Your task to perform on an android device: star an email in the gmail app Image 0: 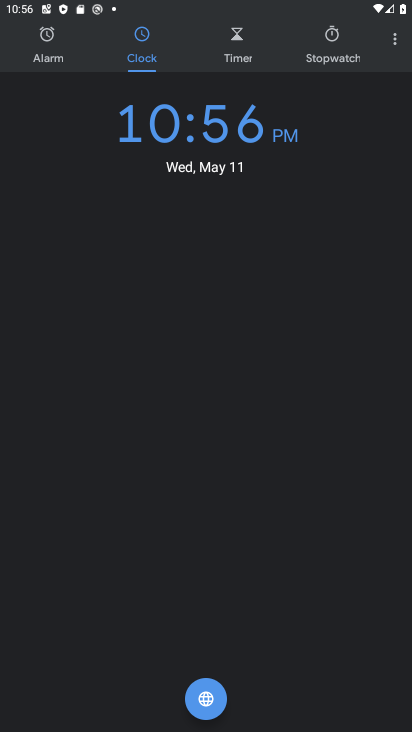
Step 0: press home button
Your task to perform on an android device: star an email in the gmail app Image 1: 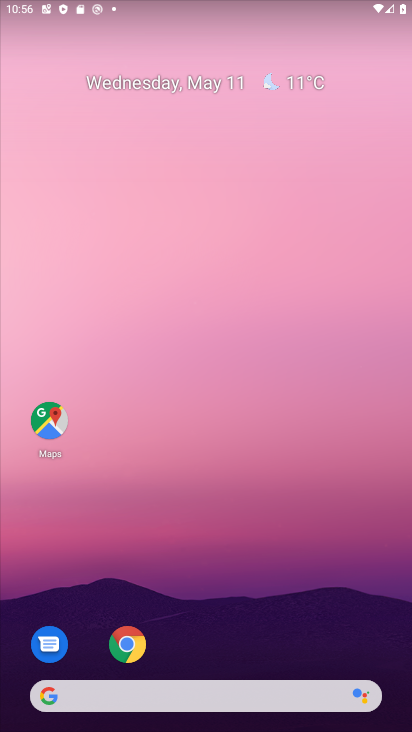
Step 1: drag from (217, 648) to (255, 121)
Your task to perform on an android device: star an email in the gmail app Image 2: 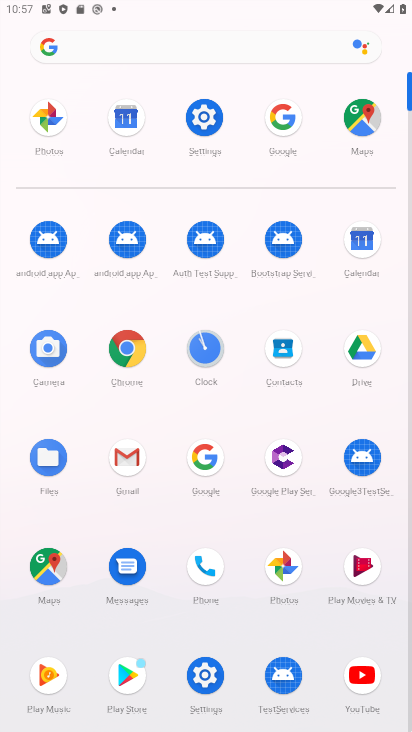
Step 2: click (126, 451)
Your task to perform on an android device: star an email in the gmail app Image 3: 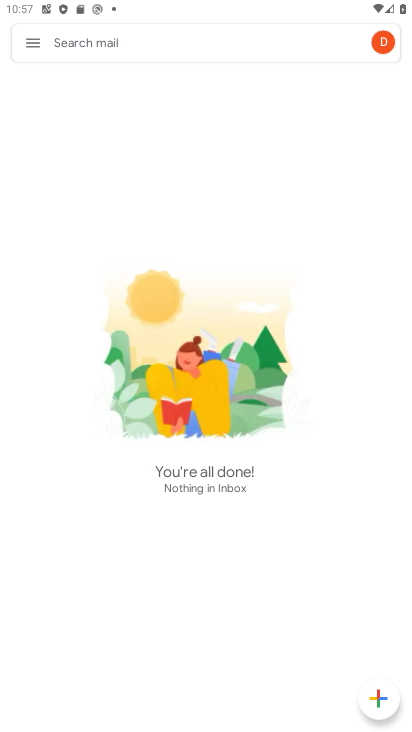
Step 3: click (28, 37)
Your task to perform on an android device: star an email in the gmail app Image 4: 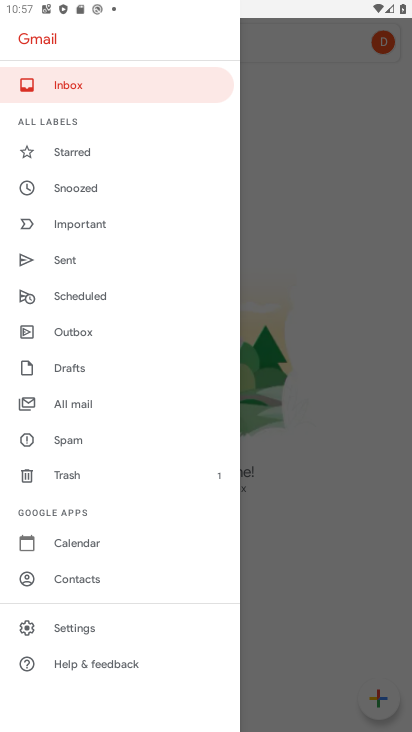
Step 4: click (84, 401)
Your task to perform on an android device: star an email in the gmail app Image 5: 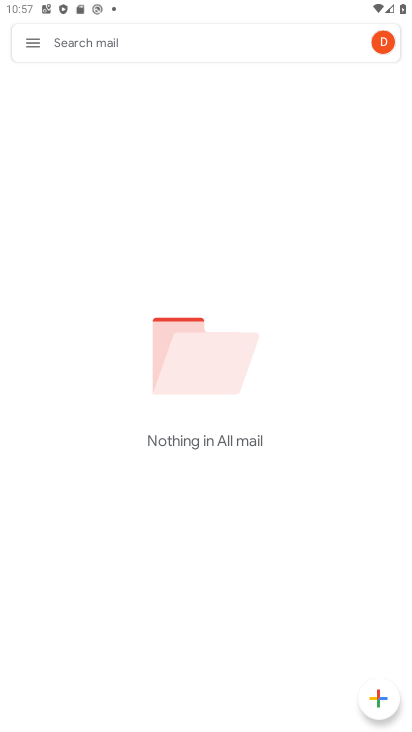
Step 5: task complete